Your task to perform on an android device: Open Maps and search for coffee Image 0: 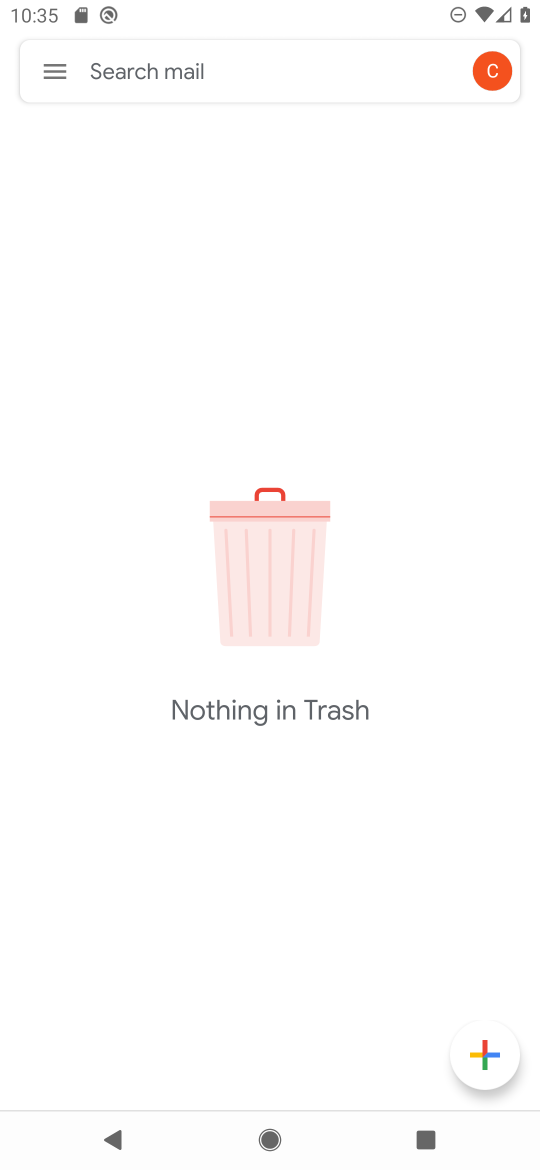
Step 0: press home button
Your task to perform on an android device: Open Maps and search for coffee Image 1: 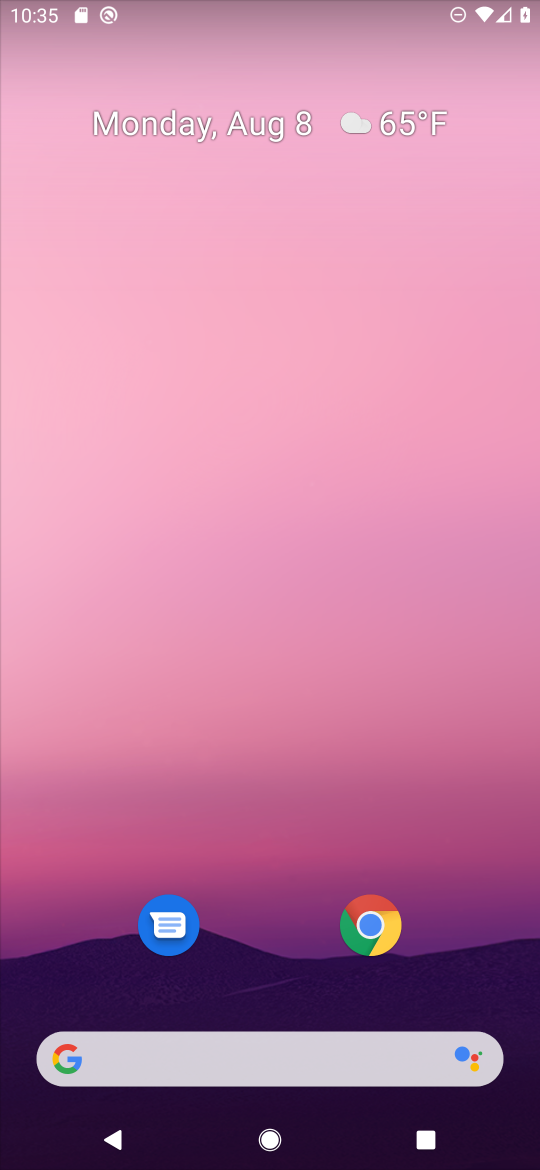
Step 1: drag from (292, 912) to (354, 111)
Your task to perform on an android device: Open Maps and search for coffee Image 2: 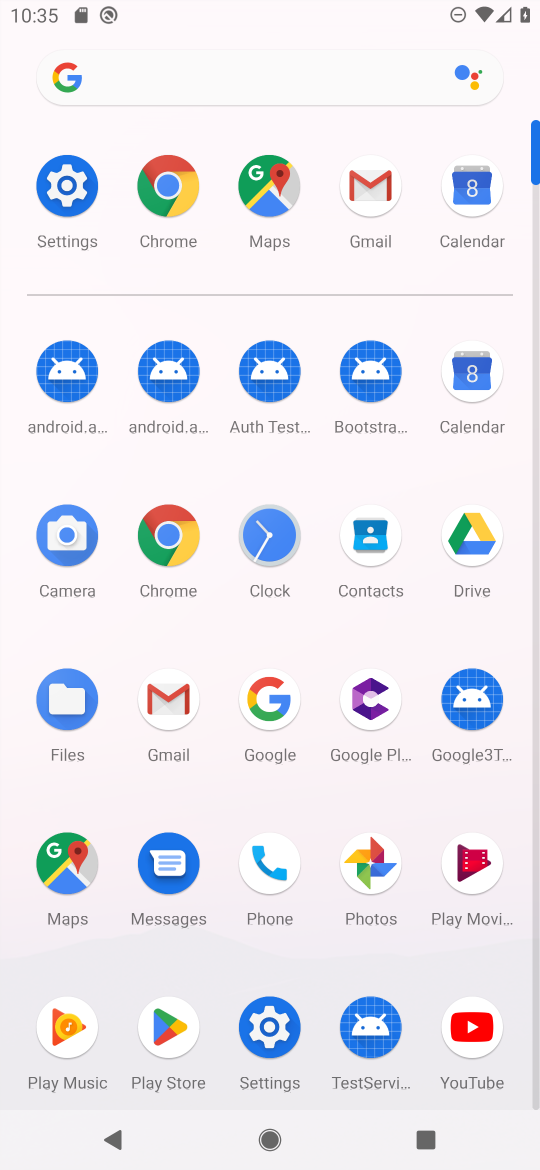
Step 2: click (69, 873)
Your task to perform on an android device: Open Maps and search for coffee Image 3: 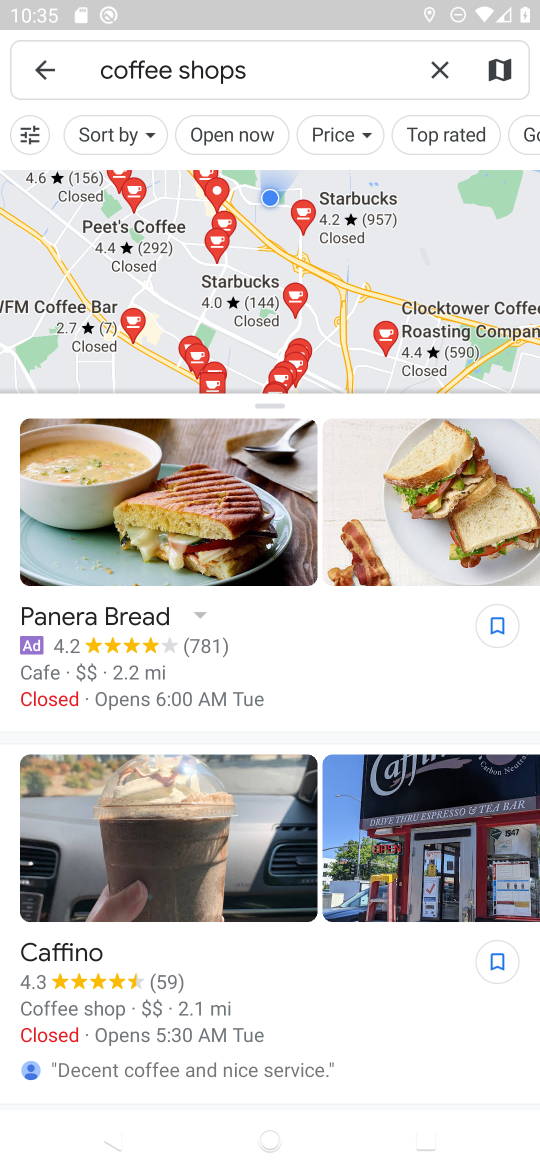
Step 3: click (435, 59)
Your task to perform on an android device: Open Maps and search for coffee Image 4: 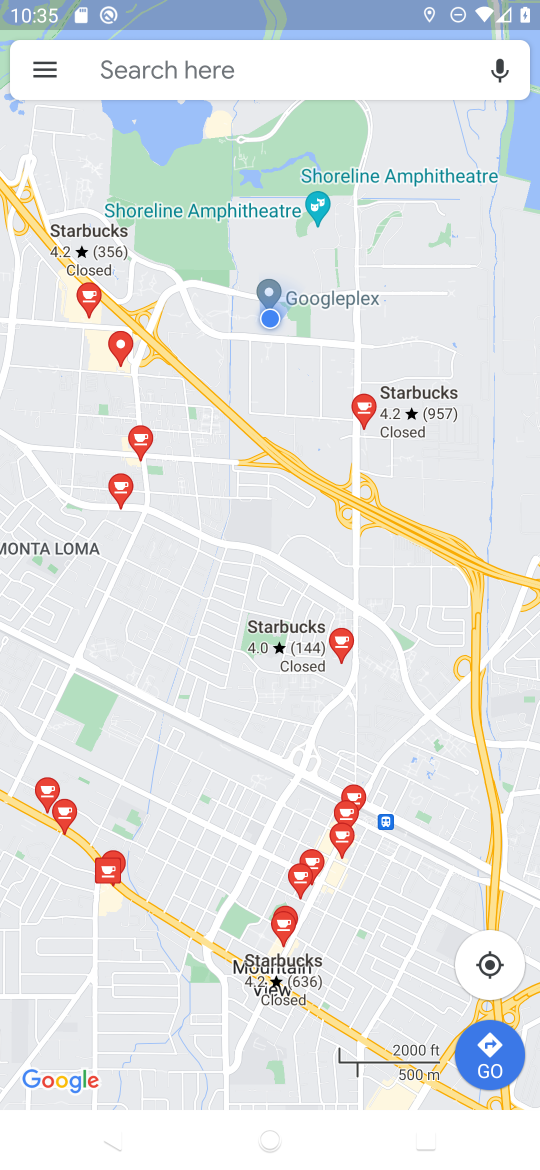
Step 4: click (330, 61)
Your task to perform on an android device: Open Maps and search for coffee Image 5: 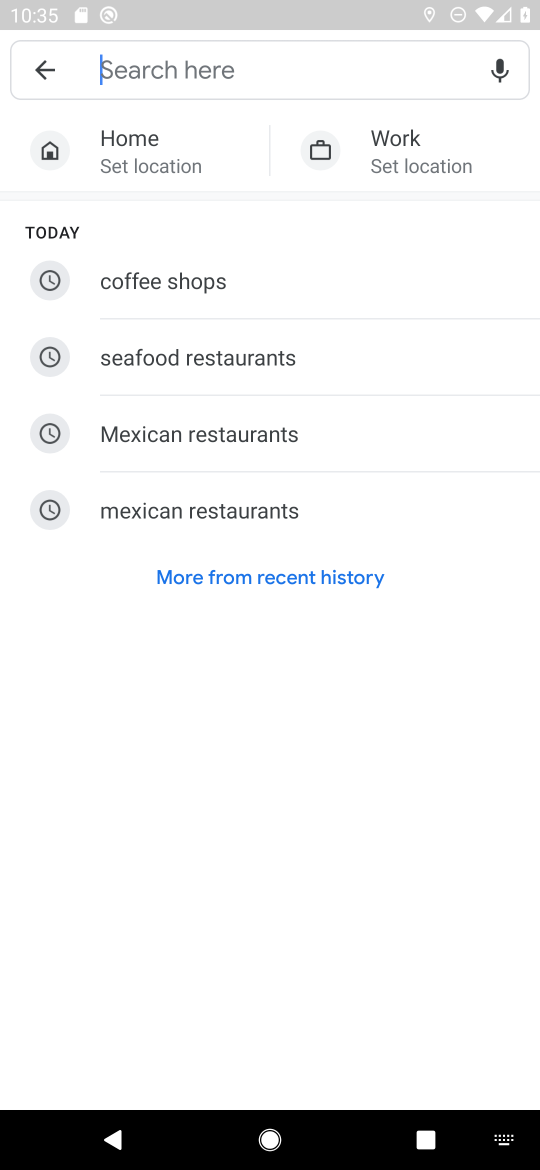
Step 5: type "coffee"
Your task to perform on an android device: Open Maps and search for coffee Image 6: 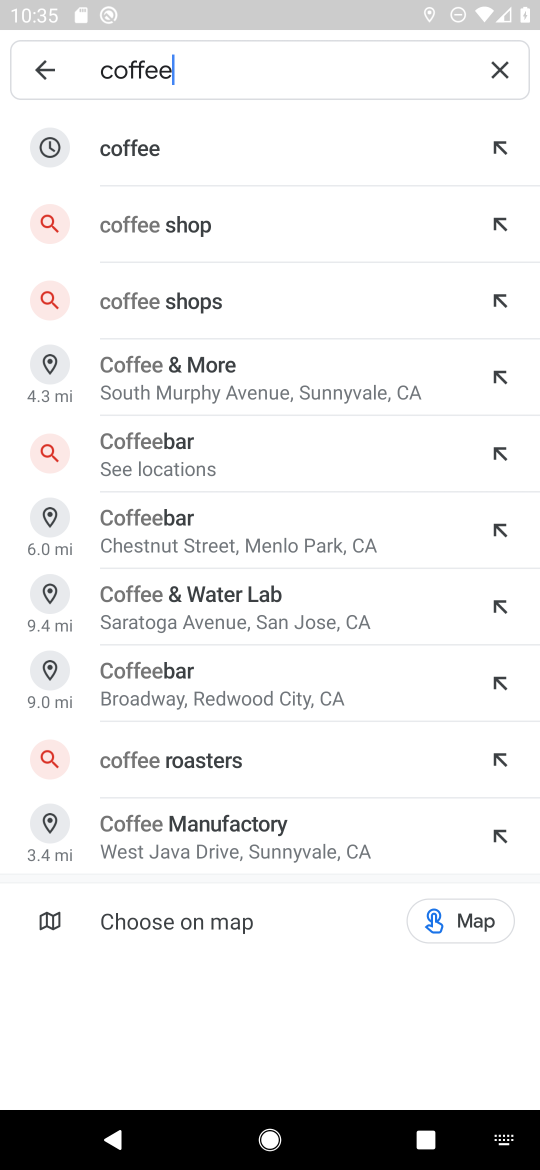
Step 6: click (212, 142)
Your task to perform on an android device: Open Maps and search for coffee Image 7: 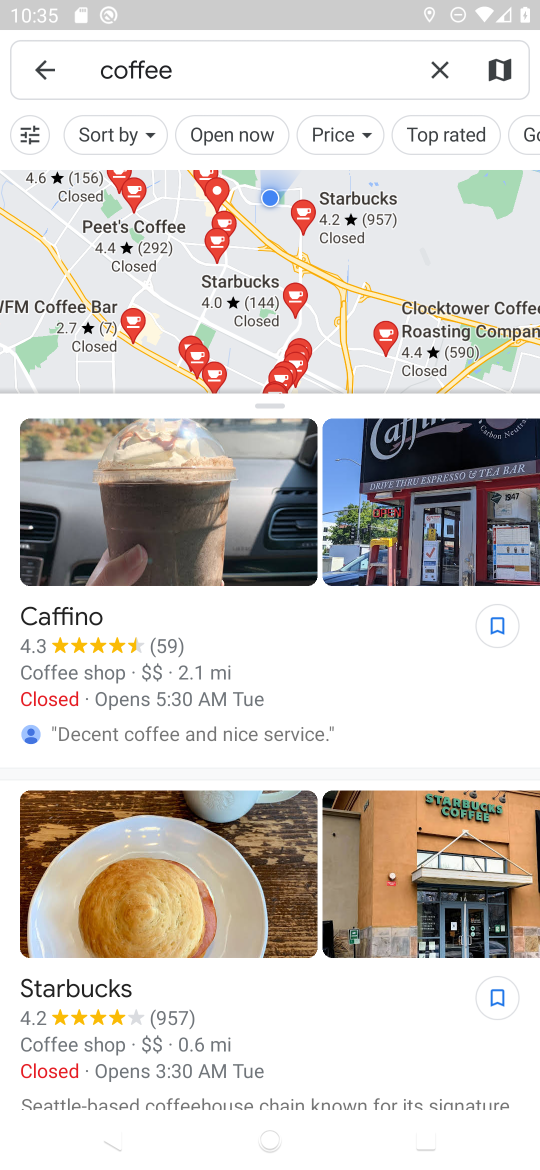
Step 7: task complete